Your task to perform on an android device: Search for the best coffee tables on Crate & Barrel Image 0: 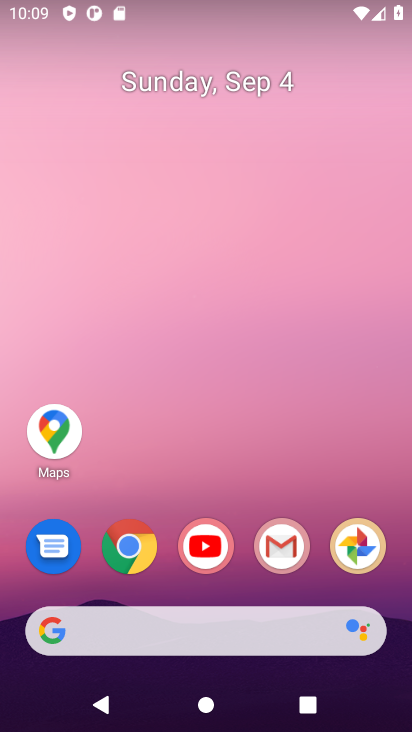
Step 0: click (137, 558)
Your task to perform on an android device: Search for the best coffee tables on Crate & Barrel Image 1: 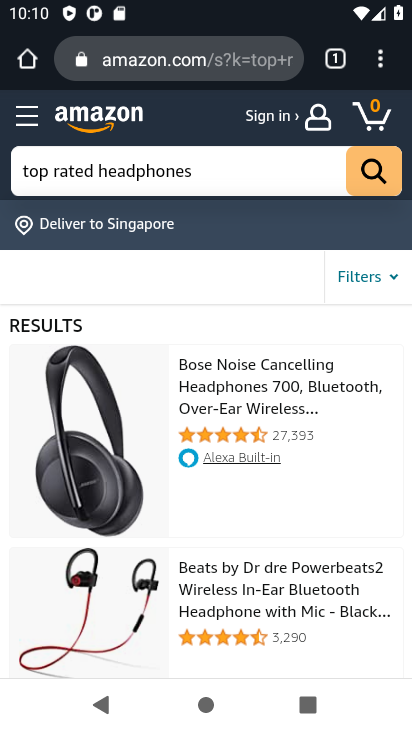
Step 1: click (201, 48)
Your task to perform on an android device: Search for the best coffee tables on Crate & Barrel Image 2: 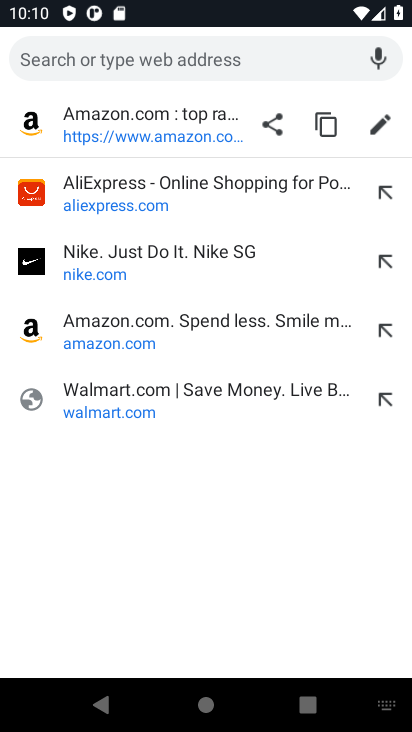
Step 2: type "Crate & Barrel"
Your task to perform on an android device: Search for the best coffee tables on Crate & Barrel Image 3: 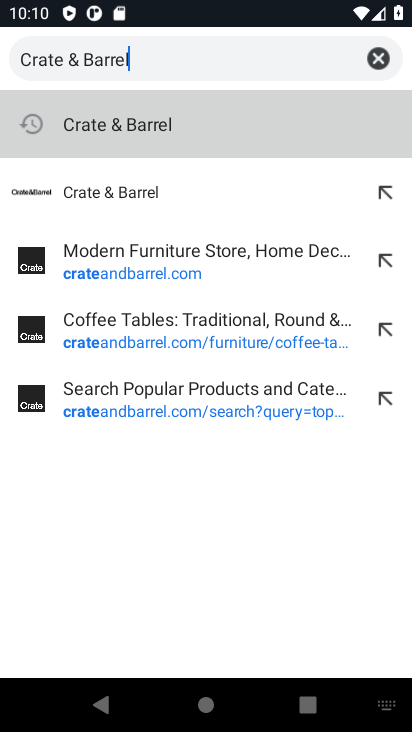
Step 3: click (111, 129)
Your task to perform on an android device: Search for the best coffee tables on Crate & Barrel Image 4: 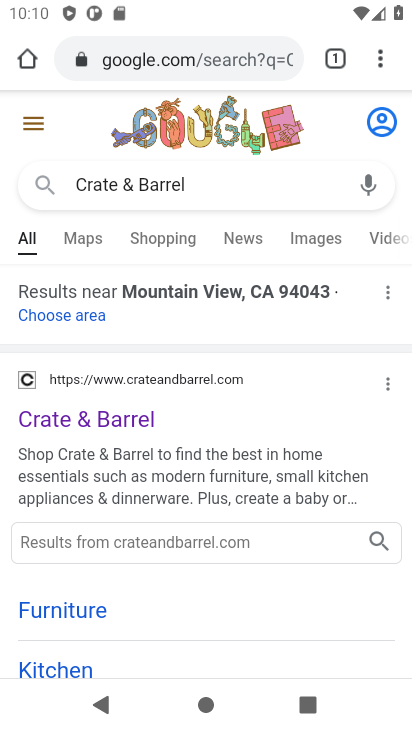
Step 4: click (82, 436)
Your task to perform on an android device: Search for the best coffee tables on Crate & Barrel Image 5: 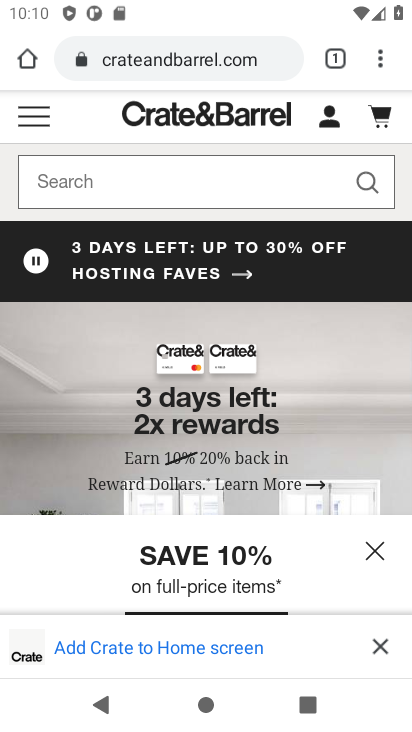
Step 5: click (115, 164)
Your task to perform on an android device: Search for the best coffee tables on Crate & Barrel Image 6: 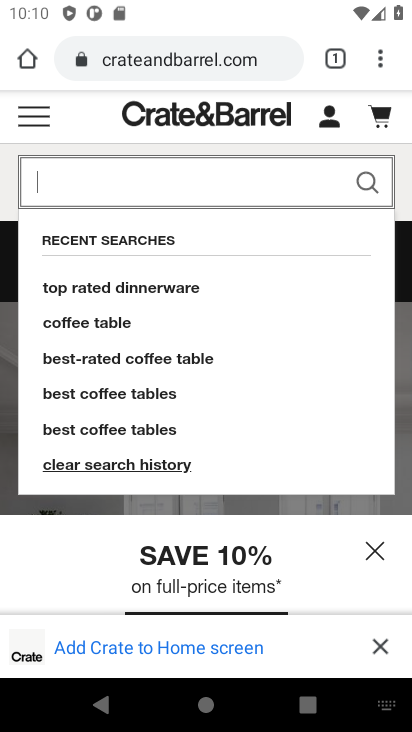
Step 6: type " best coffee tables "
Your task to perform on an android device: Search for the best coffee tables on Crate & Barrel Image 7: 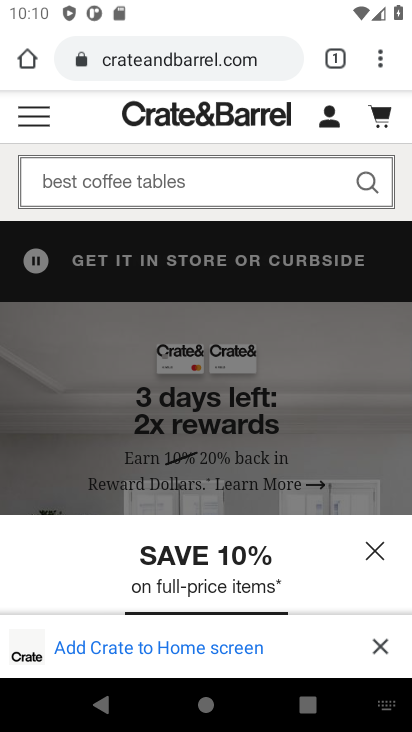
Step 7: click (355, 176)
Your task to perform on an android device: Search for the best coffee tables on Crate & Barrel Image 8: 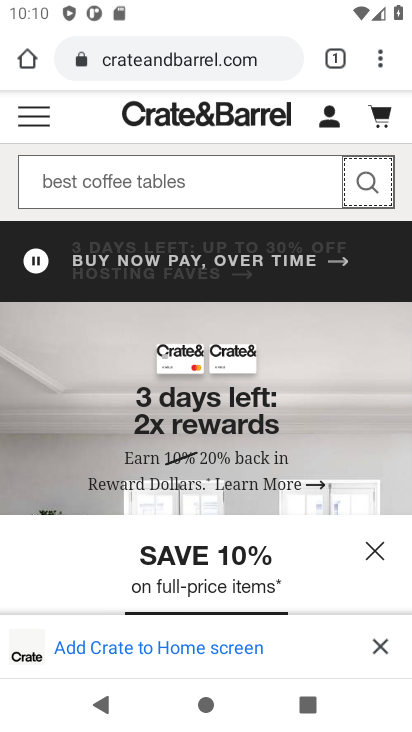
Step 8: click (365, 181)
Your task to perform on an android device: Search for the best coffee tables on Crate & Barrel Image 9: 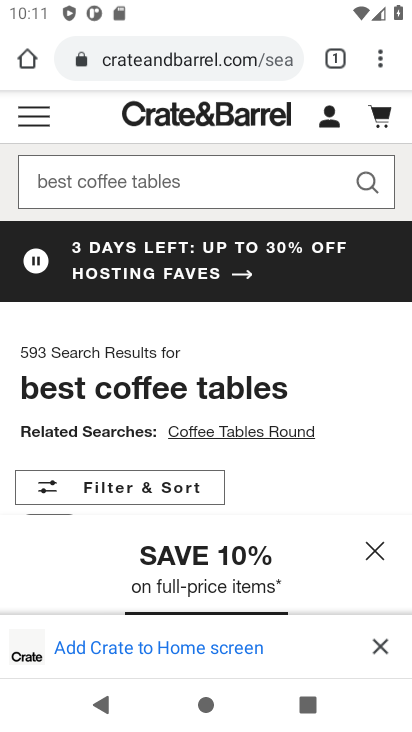
Step 9: task complete